Your task to perform on an android device: Open display settings Image 0: 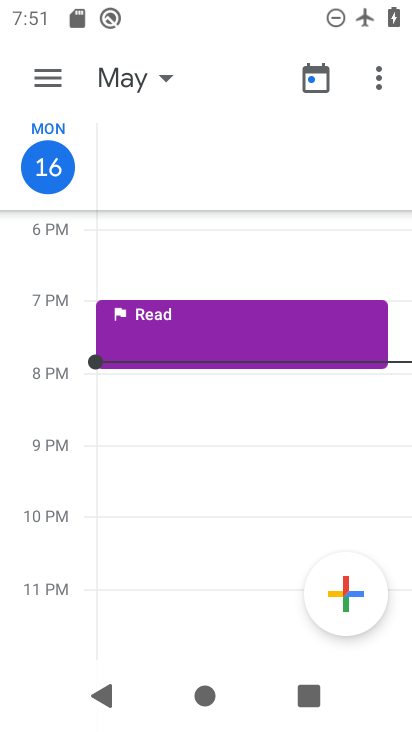
Step 0: press home button
Your task to perform on an android device: Open display settings Image 1: 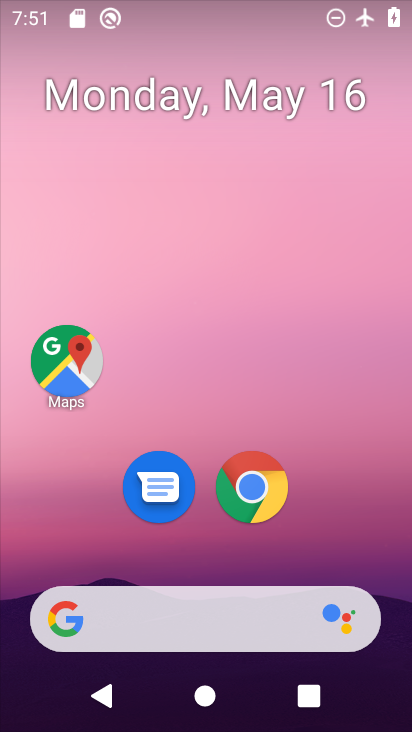
Step 1: drag from (306, 491) to (317, 109)
Your task to perform on an android device: Open display settings Image 2: 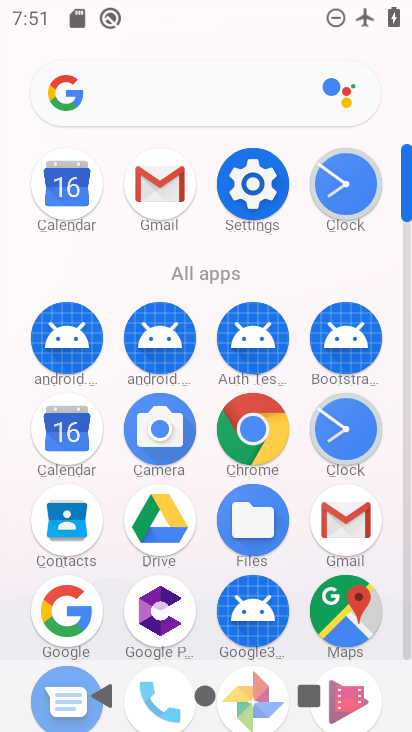
Step 2: click (262, 188)
Your task to perform on an android device: Open display settings Image 3: 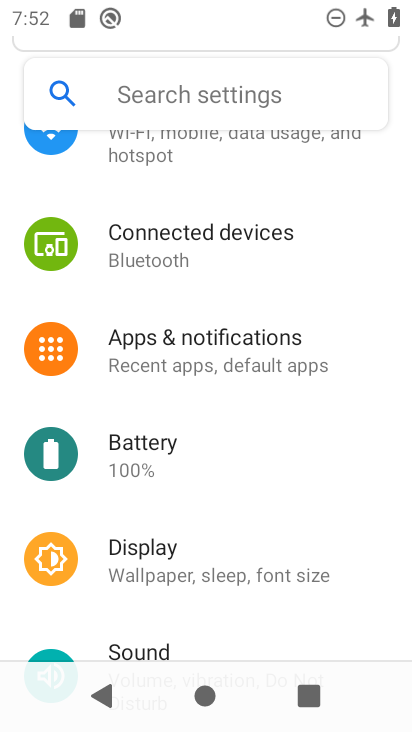
Step 3: click (165, 547)
Your task to perform on an android device: Open display settings Image 4: 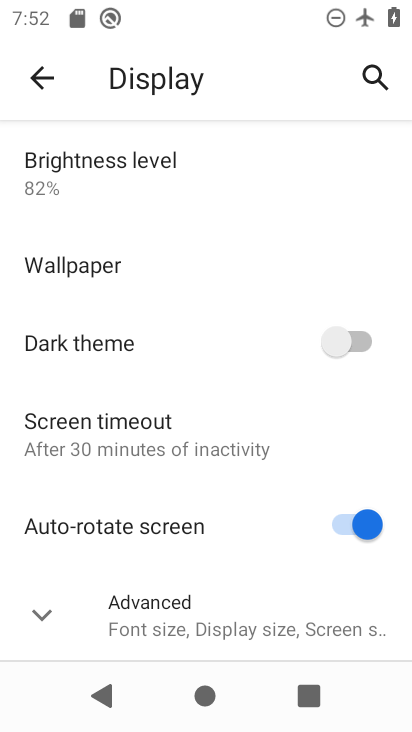
Step 4: task complete